Your task to perform on an android device: Open the map Image 0: 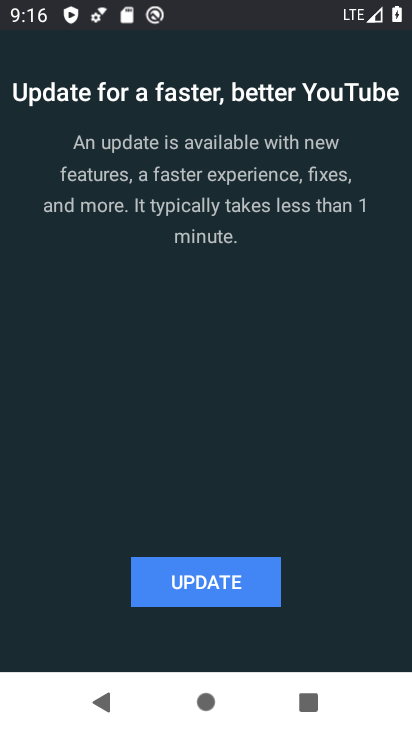
Step 0: press home button
Your task to perform on an android device: Open the map Image 1: 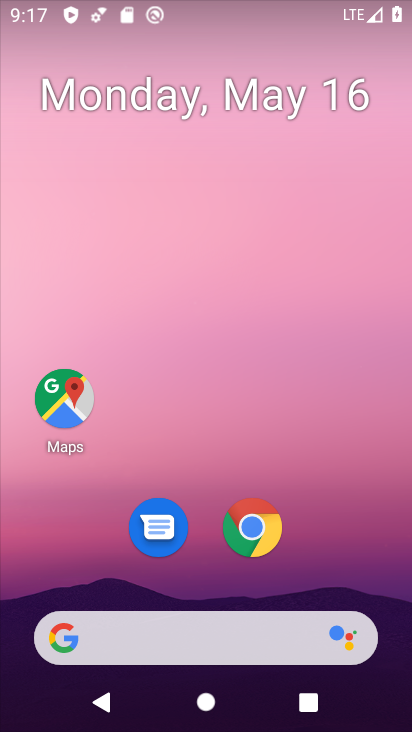
Step 1: click (47, 408)
Your task to perform on an android device: Open the map Image 2: 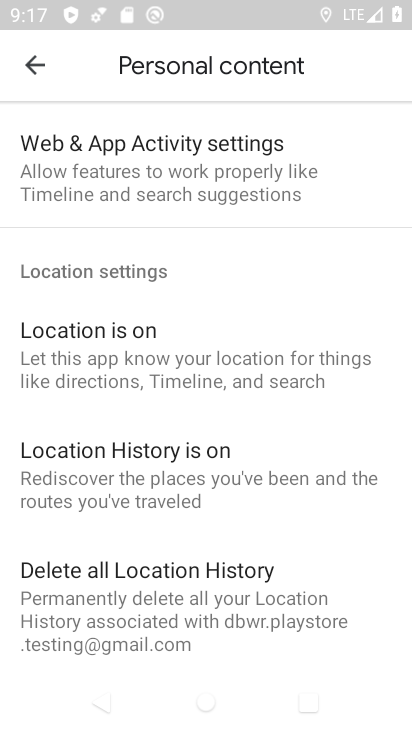
Step 2: click (32, 66)
Your task to perform on an android device: Open the map Image 3: 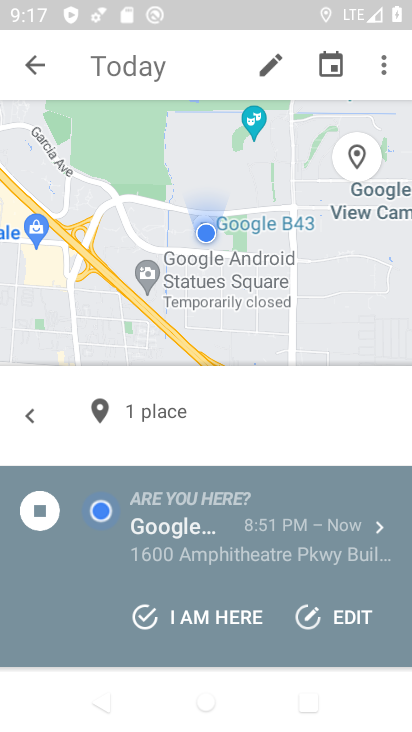
Step 3: click (32, 66)
Your task to perform on an android device: Open the map Image 4: 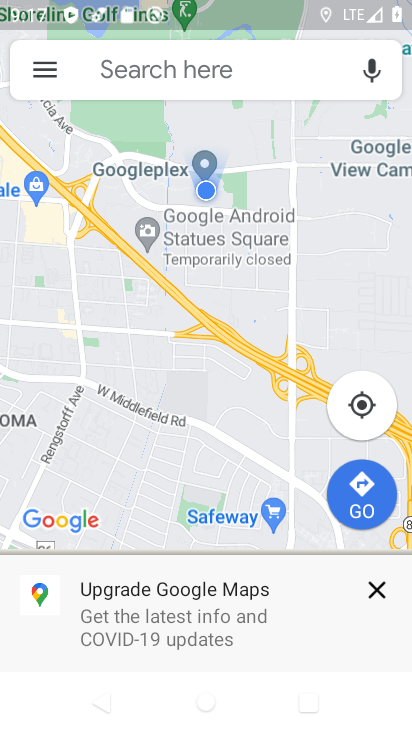
Step 4: task complete